Your task to perform on an android device: toggle sleep mode Image 0: 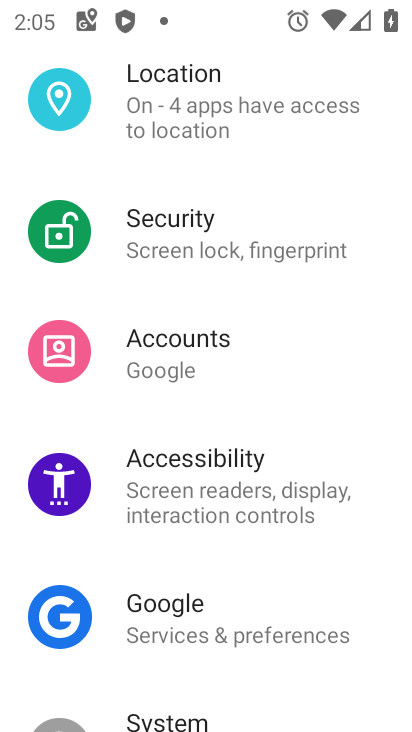
Step 0: drag from (111, 265) to (128, 644)
Your task to perform on an android device: toggle sleep mode Image 1: 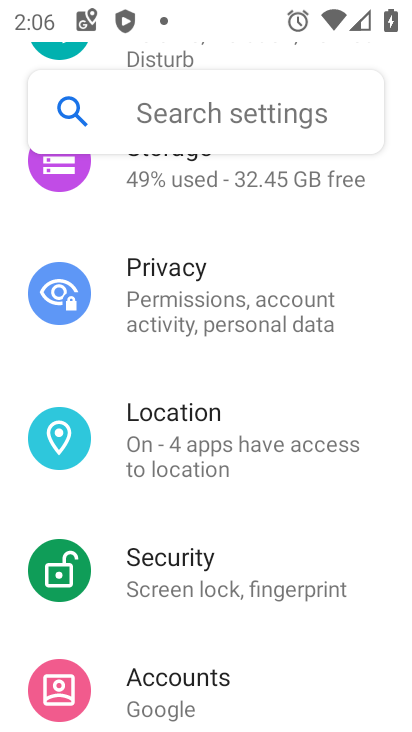
Step 1: drag from (202, 234) to (226, 520)
Your task to perform on an android device: toggle sleep mode Image 2: 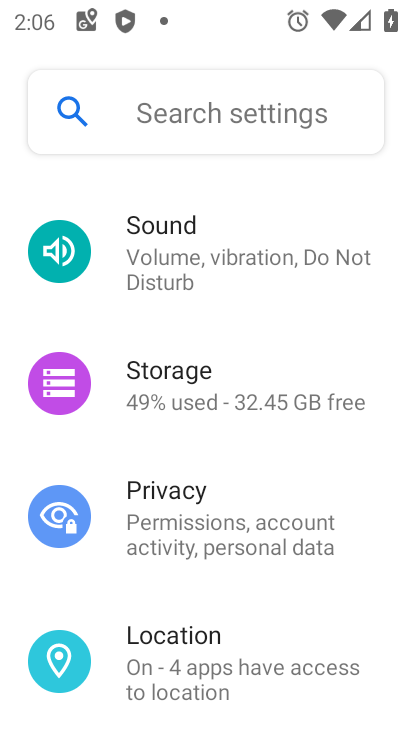
Step 2: drag from (226, 256) to (242, 534)
Your task to perform on an android device: toggle sleep mode Image 3: 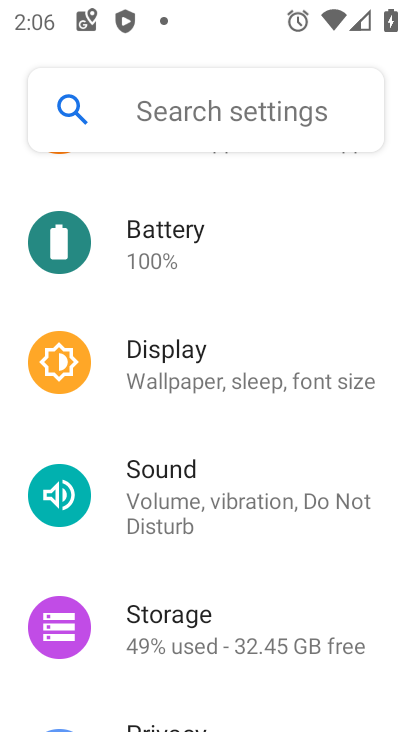
Step 3: drag from (190, 288) to (196, 582)
Your task to perform on an android device: toggle sleep mode Image 4: 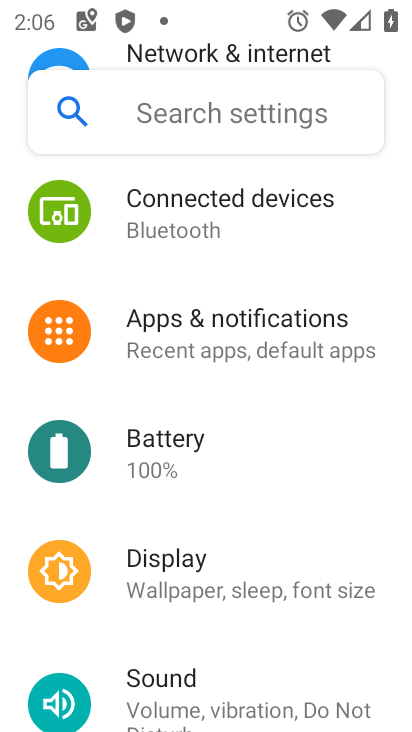
Step 4: click (177, 558)
Your task to perform on an android device: toggle sleep mode Image 5: 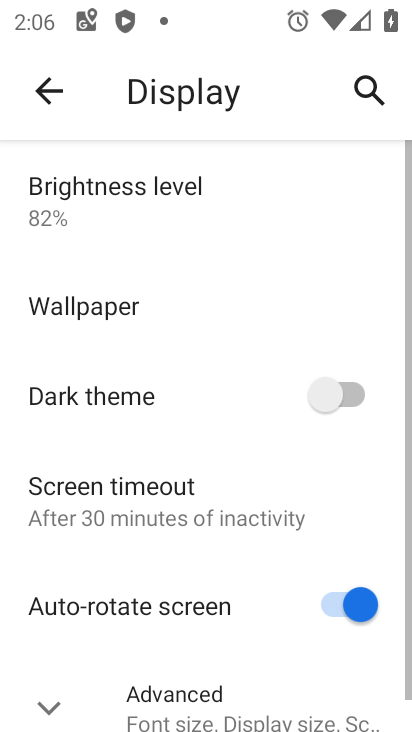
Step 5: drag from (178, 603) to (185, 231)
Your task to perform on an android device: toggle sleep mode Image 6: 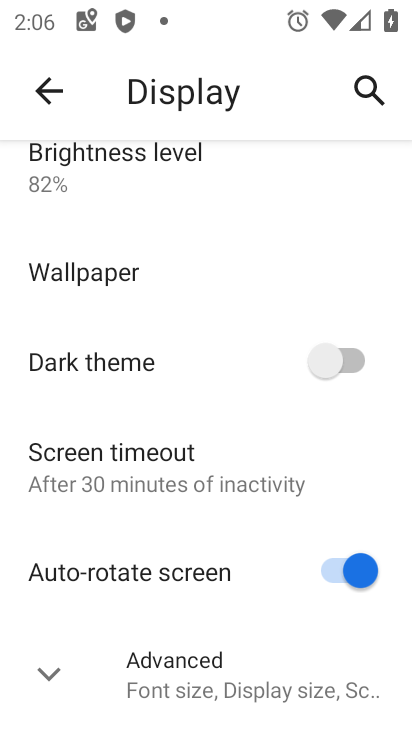
Step 6: click (113, 661)
Your task to perform on an android device: toggle sleep mode Image 7: 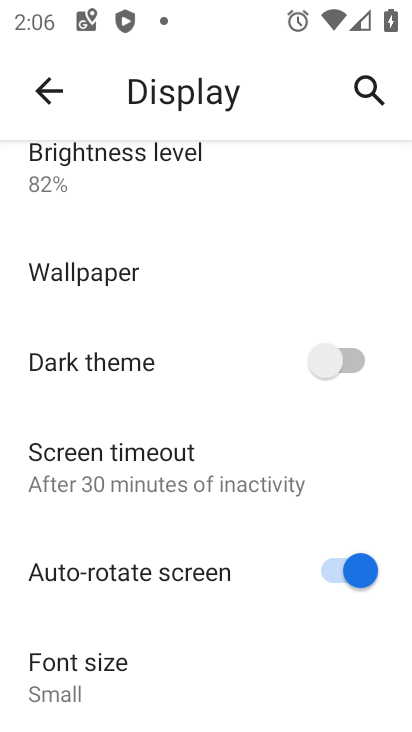
Step 7: task complete